Your task to perform on an android device: turn off translation in the chrome app Image 0: 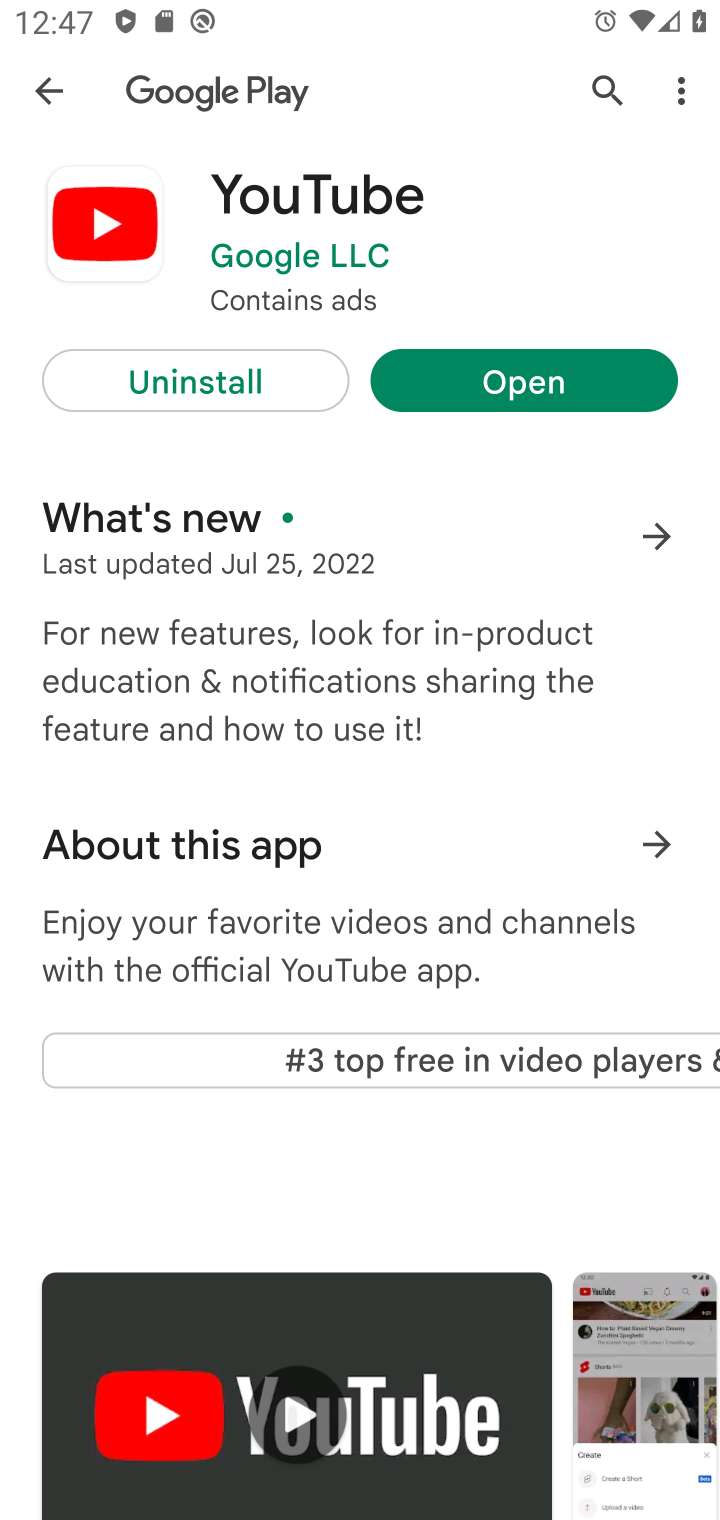
Step 0: press home button
Your task to perform on an android device: turn off translation in the chrome app Image 1: 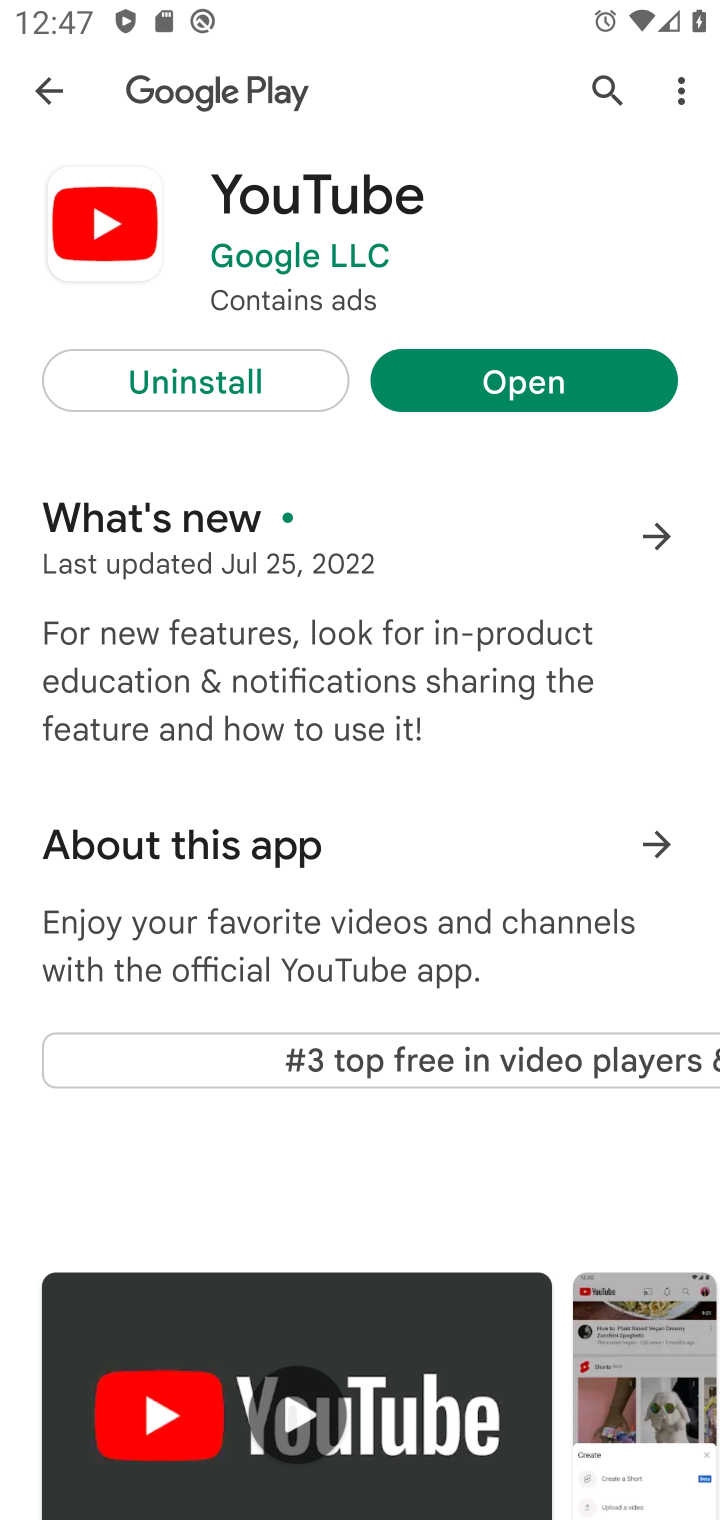
Step 1: click (512, 433)
Your task to perform on an android device: turn off translation in the chrome app Image 2: 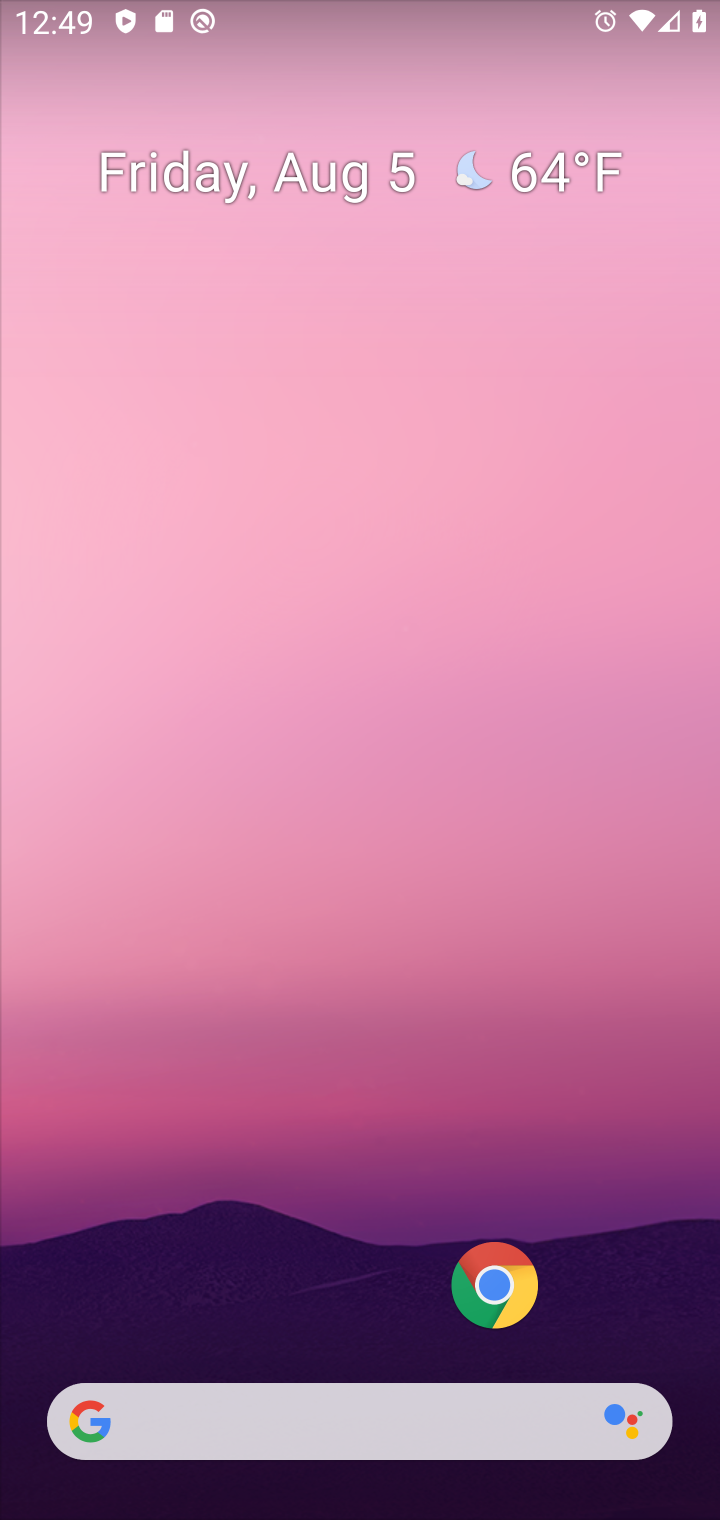
Step 2: drag from (188, 1416) to (457, 321)
Your task to perform on an android device: turn off translation in the chrome app Image 3: 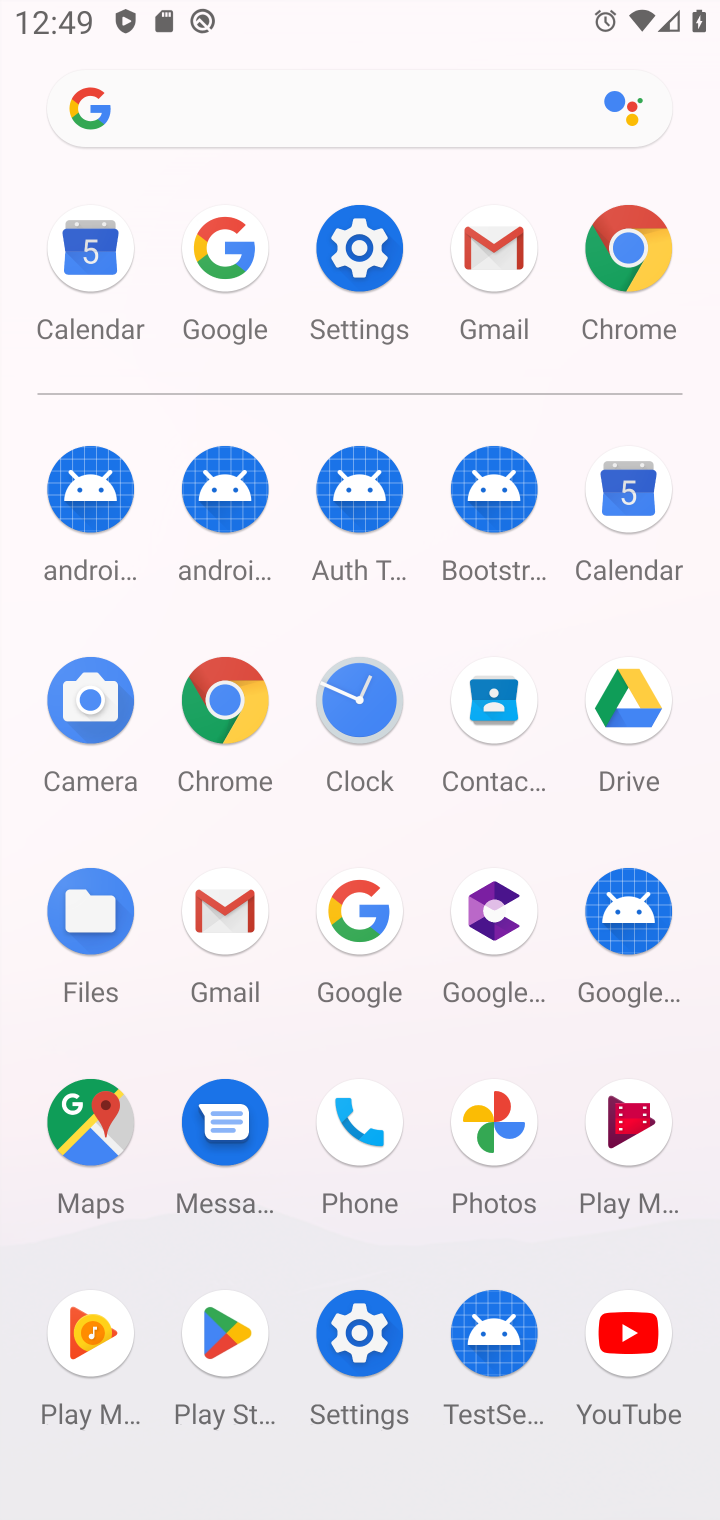
Step 3: click (247, 707)
Your task to perform on an android device: turn off translation in the chrome app Image 4: 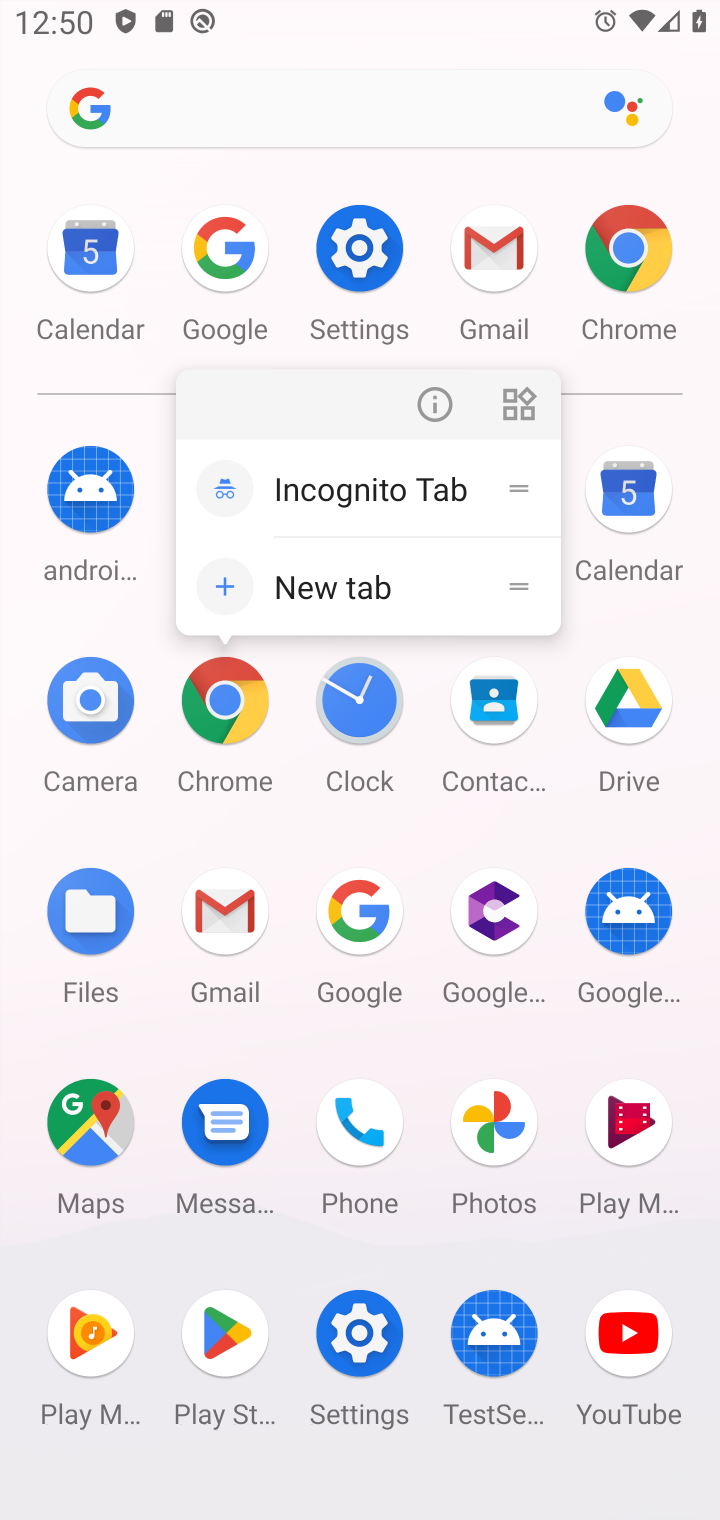
Step 4: click (660, 267)
Your task to perform on an android device: turn off translation in the chrome app Image 5: 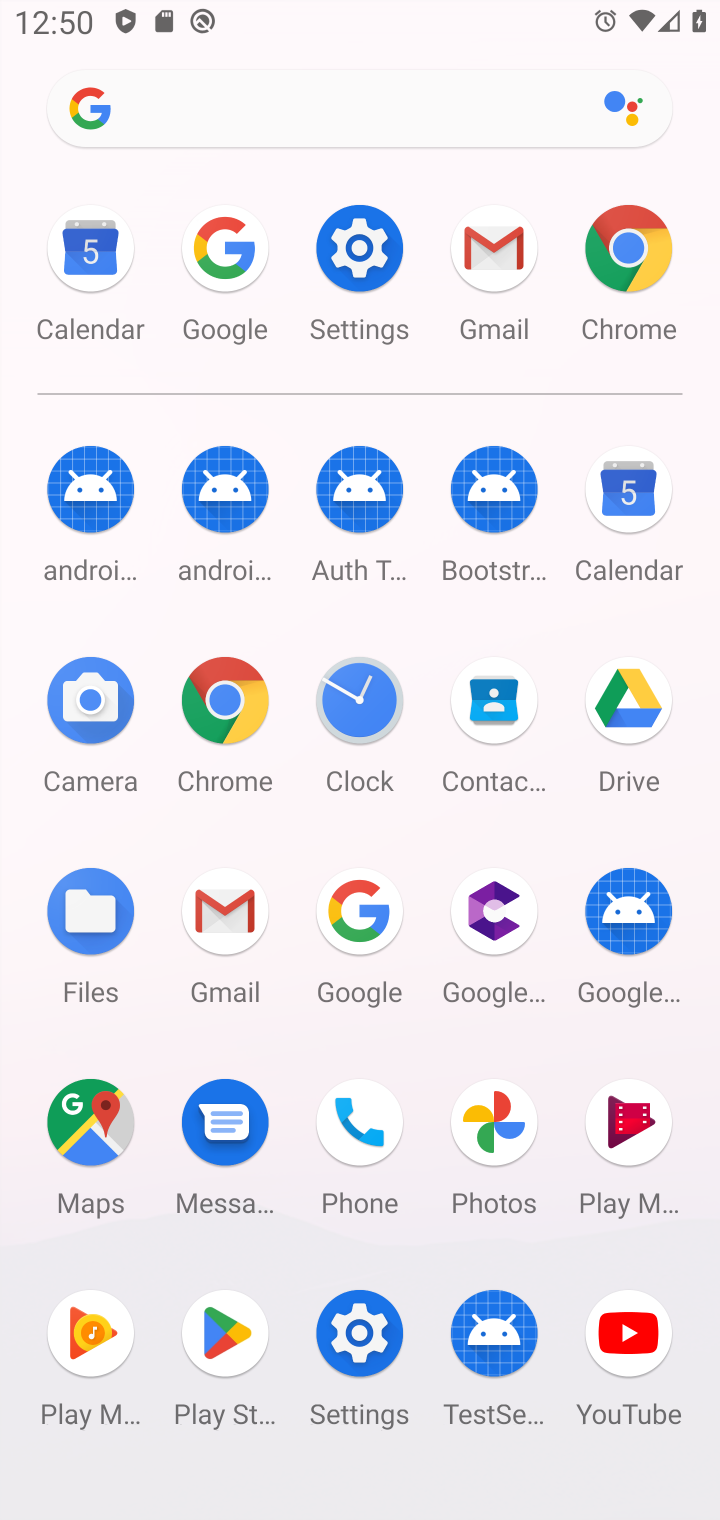
Step 5: click (641, 210)
Your task to perform on an android device: turn off translation in the chrome app Image 6: 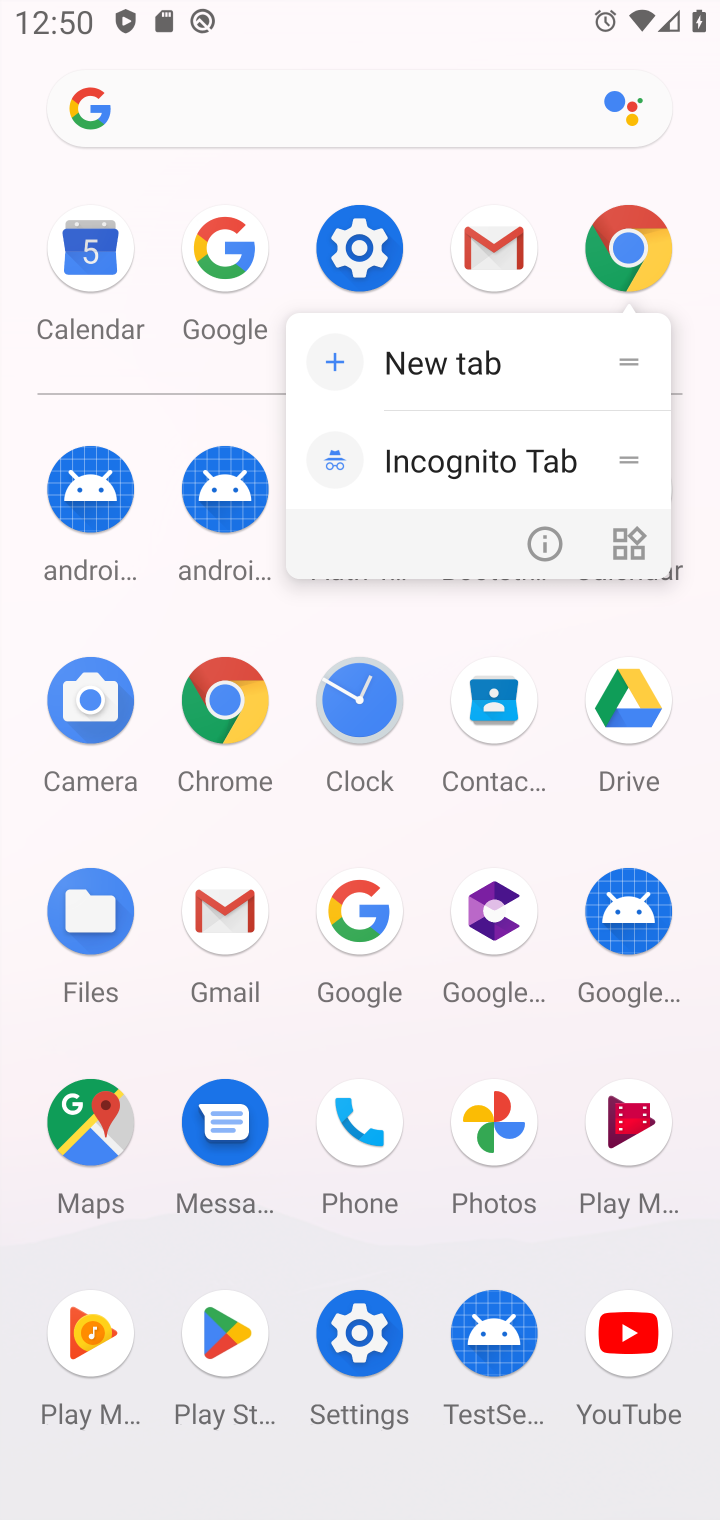
Step 6: click (636, 222)
Your task to perform on an android device: turn off translation in the chrome app Image 7: 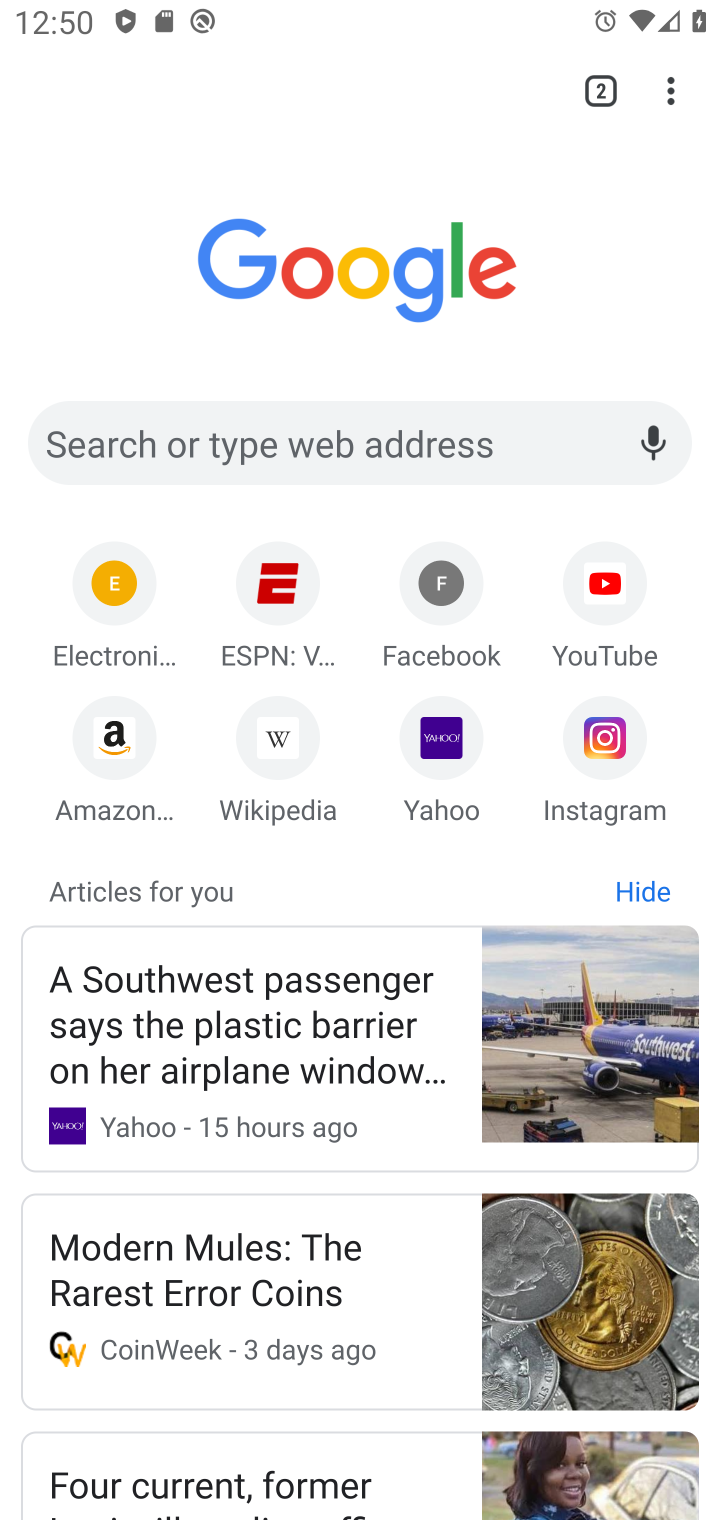
Step 7: click (670, 79)
Your task to perform on an android device: turn off translation in the chrome app Image 8: 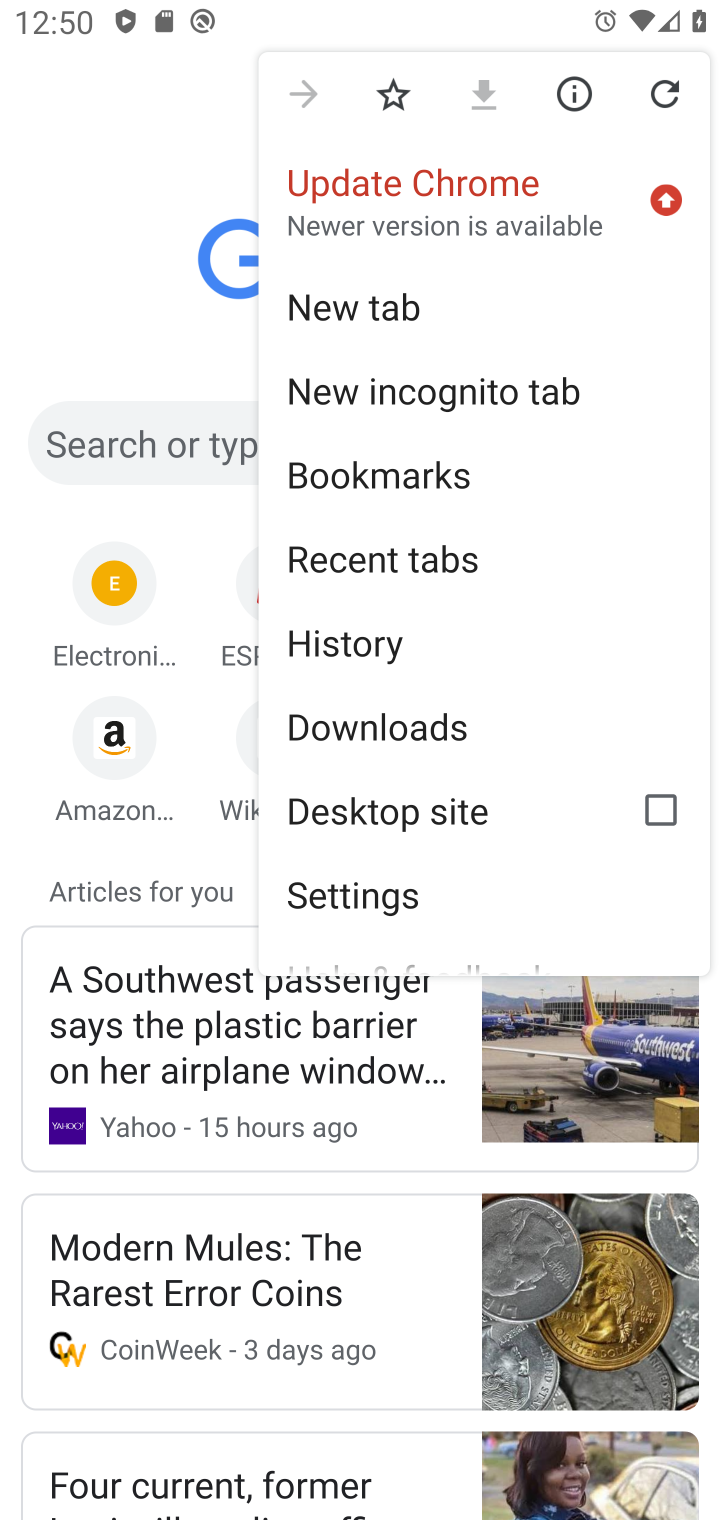
Step 8: click (384, 903)
Your task to perform on an android device: turn off translation in the chrome app Image 9: 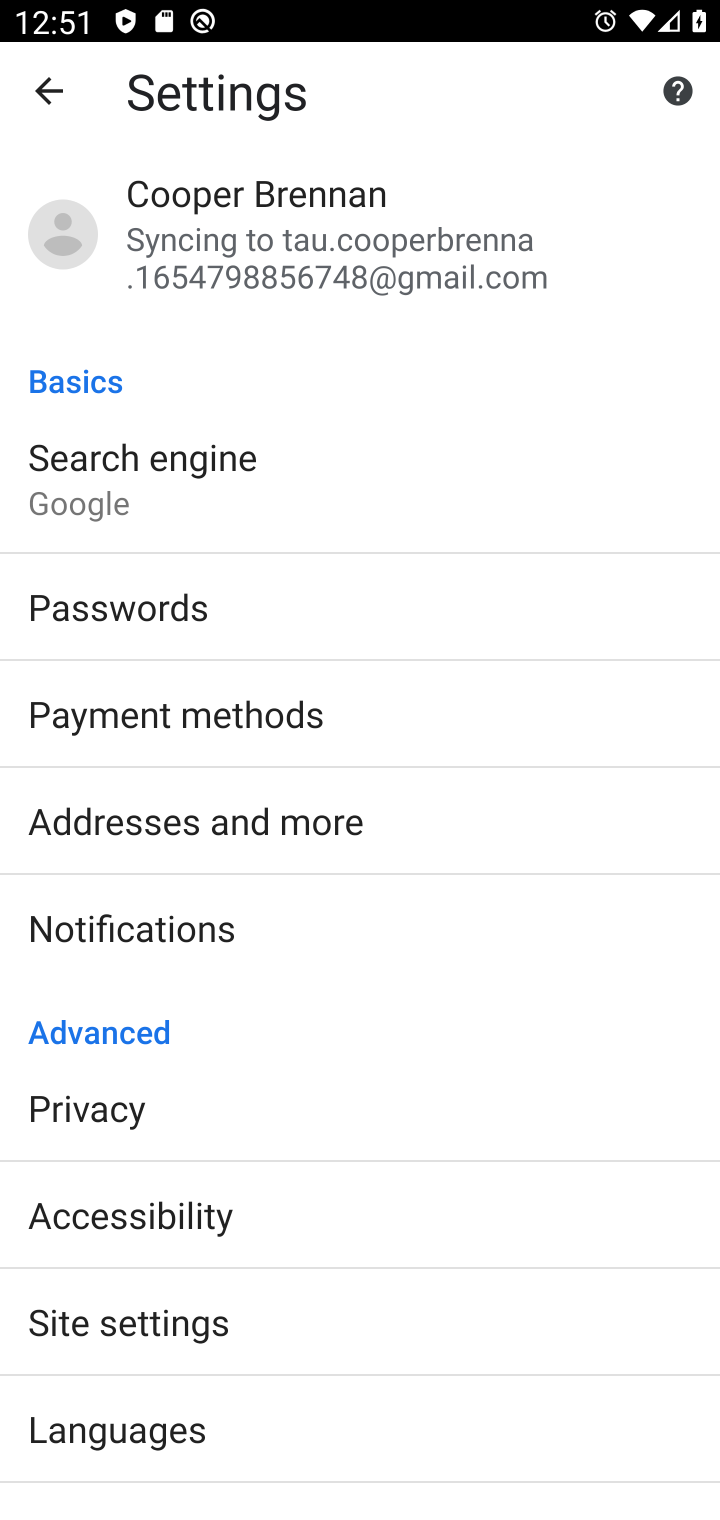
Step 9: click (157, 1346)
Your task to perform on an android device: turn off translation in the chrome app Image 10: 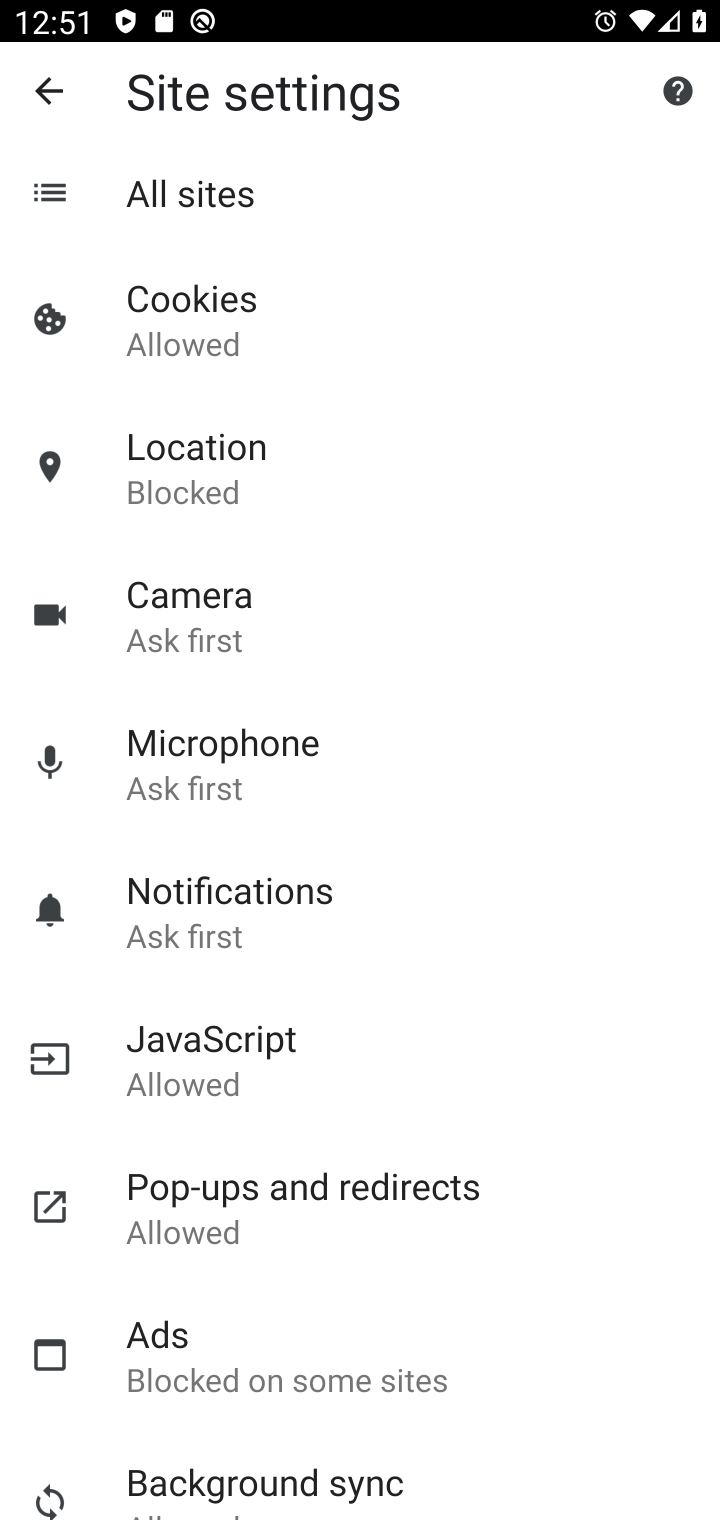
Step 10: click (61, 94)
Your task to perform on an android device: turn off translation in the chrome app Image 11: 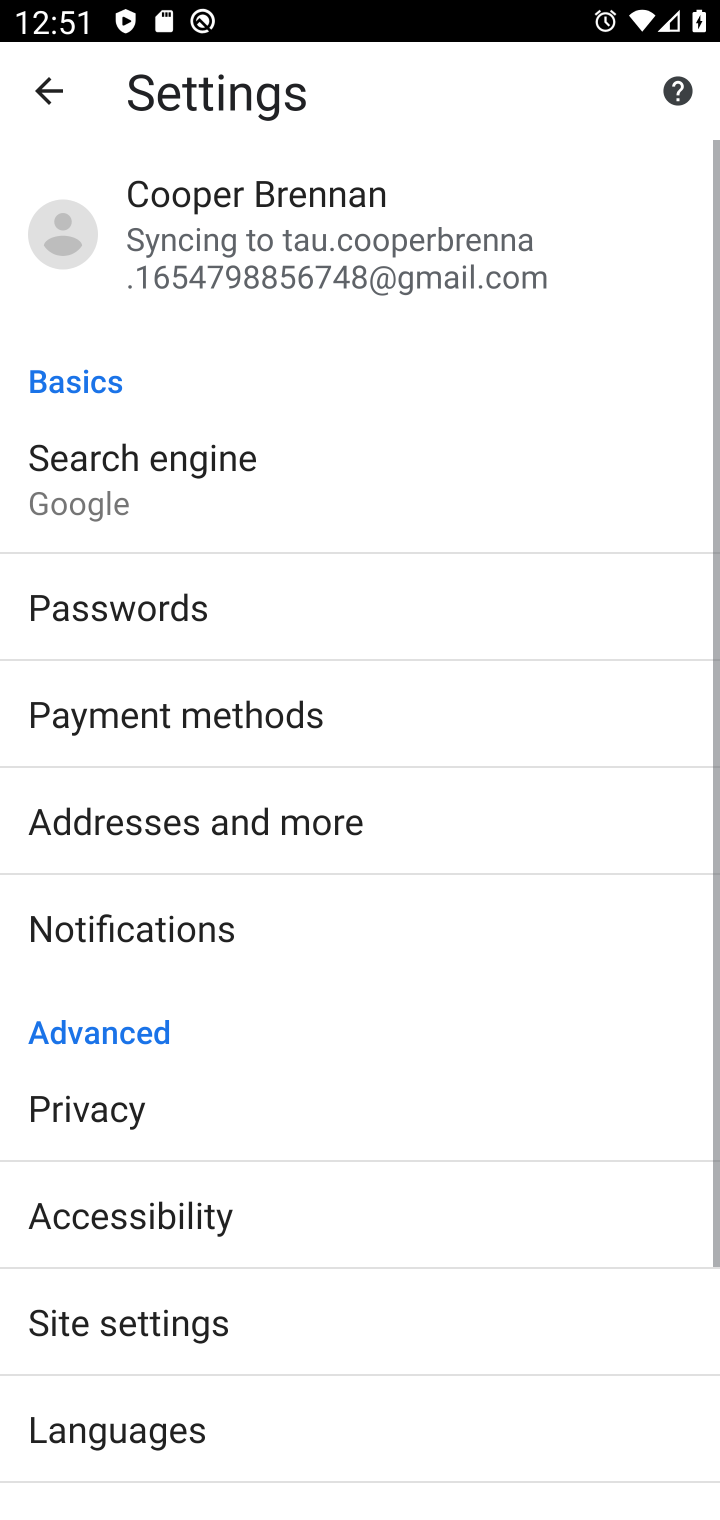
Step 11: drag from (303, 1225) to (267, 1126)
Your task to perform on an android device: turn off translation in the chrome app Image 12: 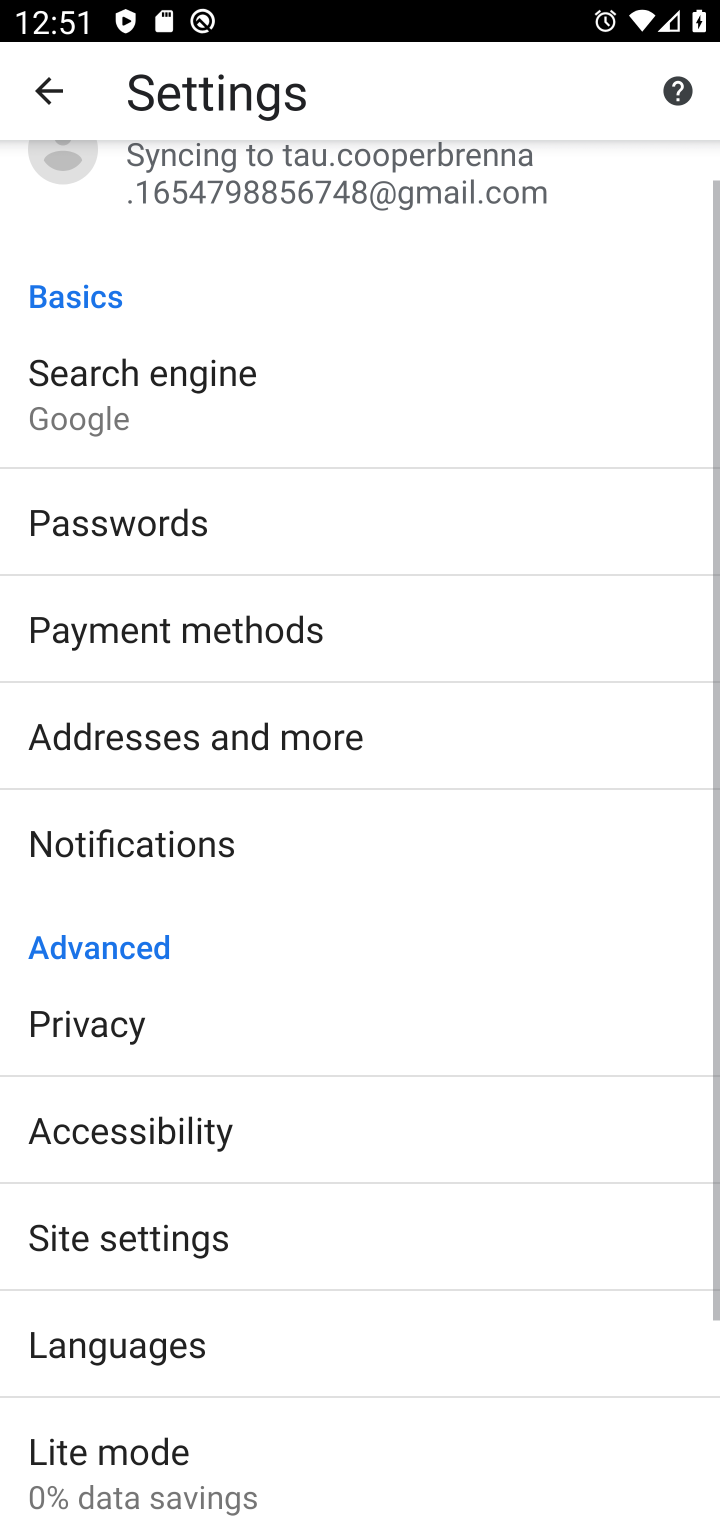
Step 12: click (206, 1362)
Your task to perform on an android device: turn off translation in the chrome app Image 13: 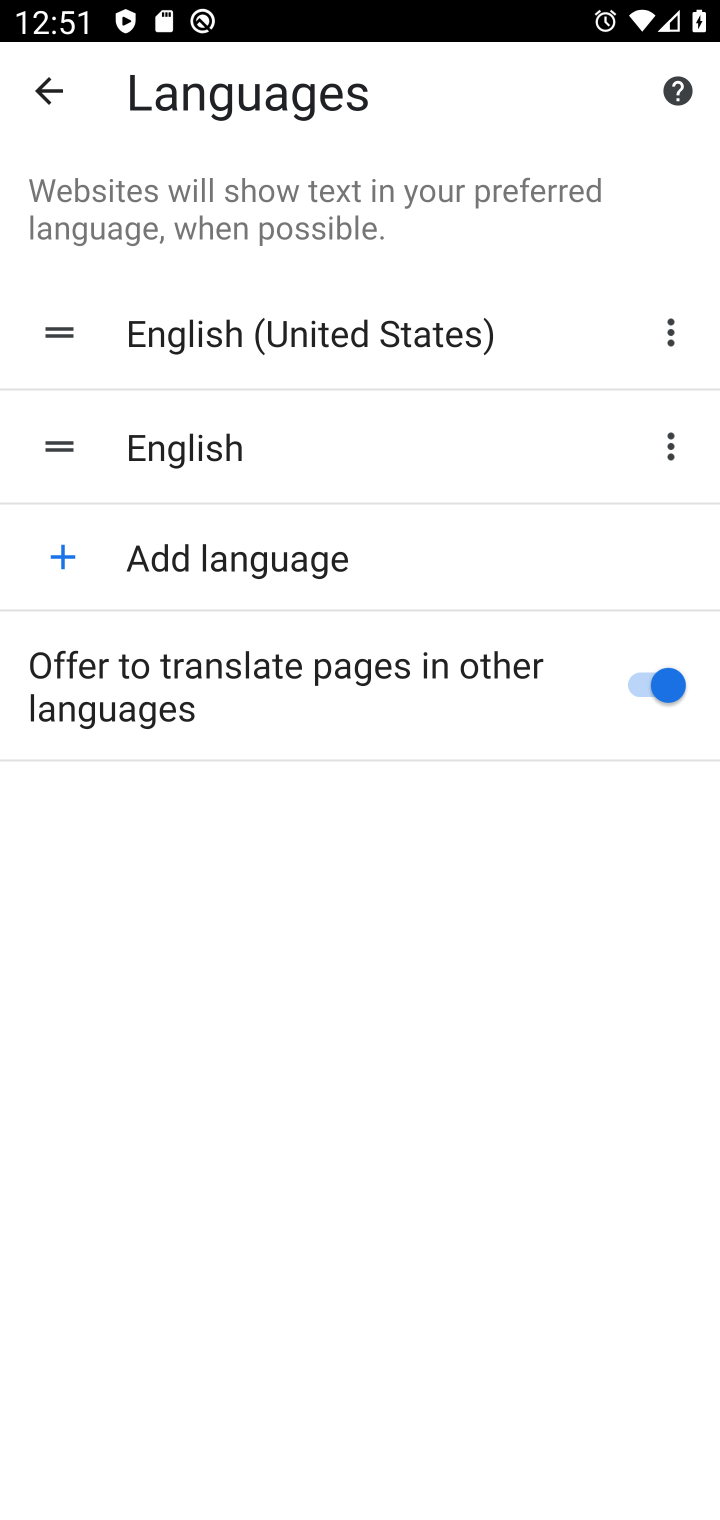
Step 13: click (456, 705)
Your task to perform on an android device: turn off translation in the chrome app Image 14: 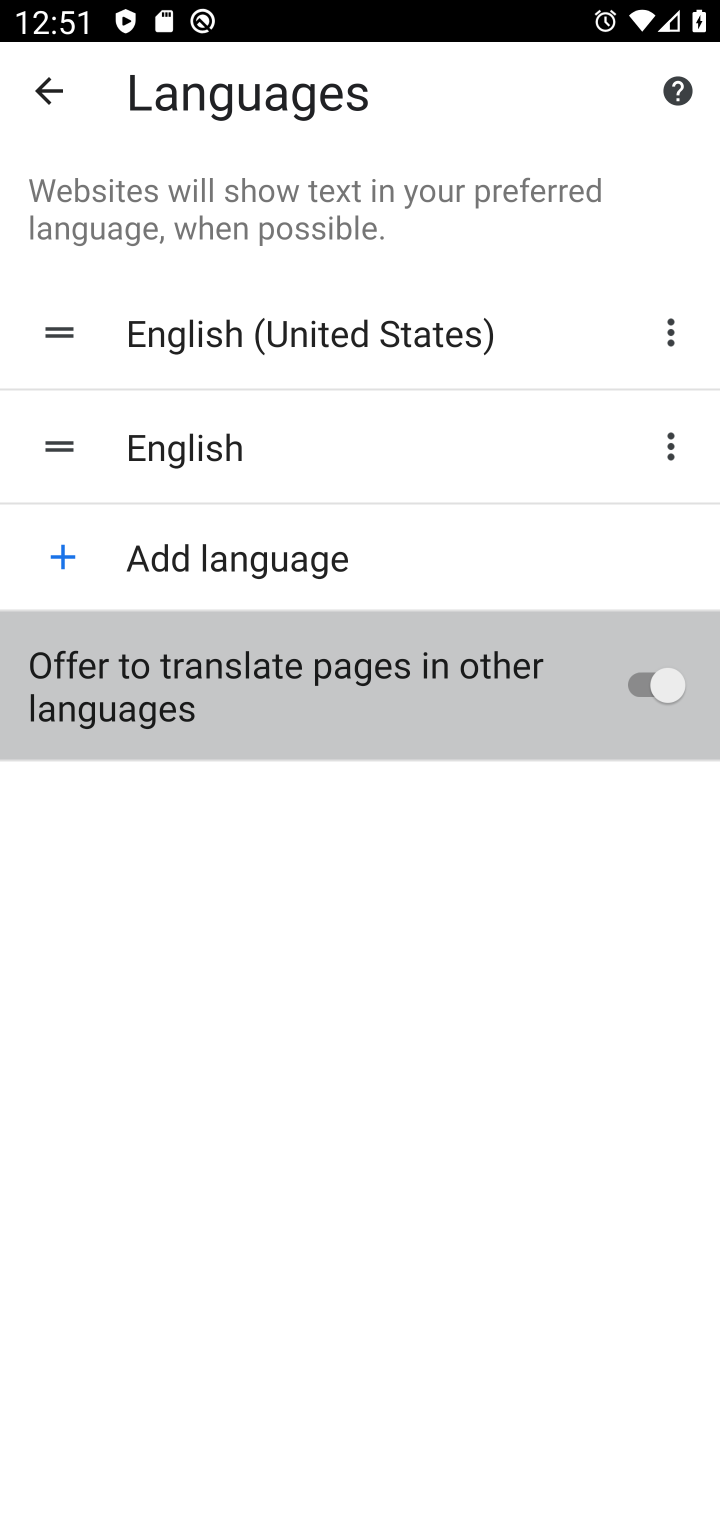
Step 14: task complete